Your task to perform on an android device: Do I have any events today? Image 0: 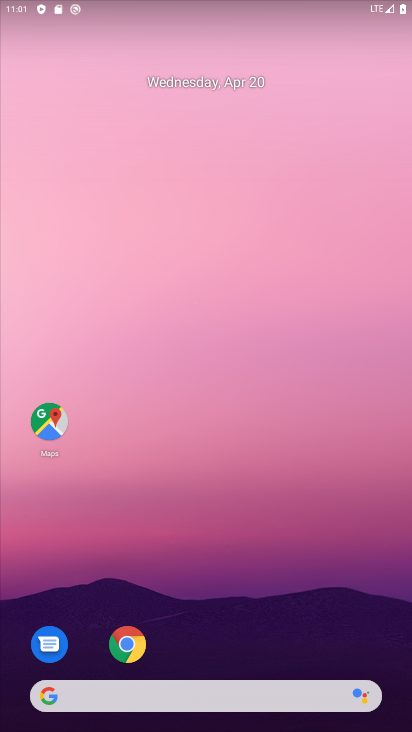
Step 0: drag from (143, 408) to (173, 3)
Your task to perform on an android device: Do I have any events today? Image 1: 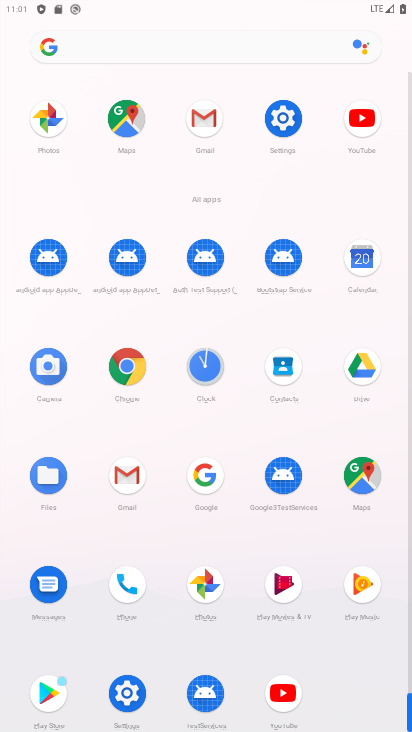
Step 1: click (369, 257)
Your task to perform on an android device: Do I have any events today? Image 2: 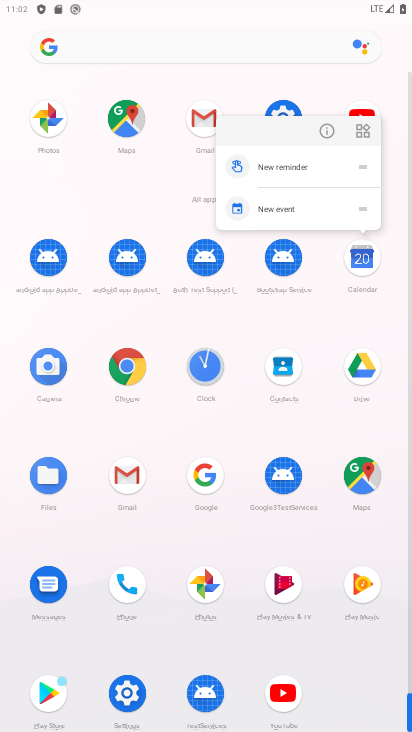
Step 2: click (365, 276)
Your task to perform on an android device: Do I have any events today? Image 3: 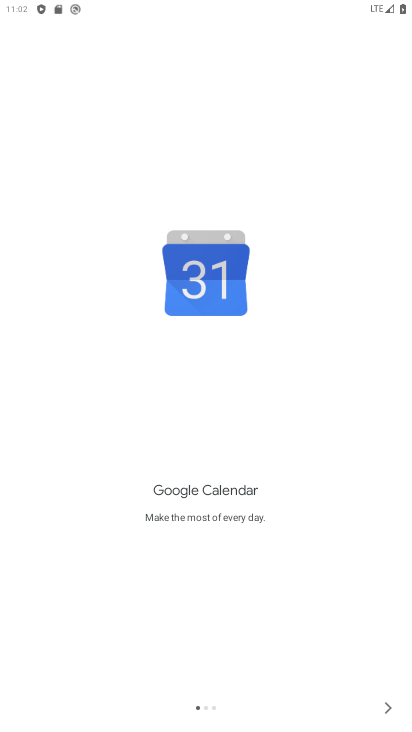
Step 3: click (383, 711)
Your task to perform on an android device: Do I have any events today? Image 4: 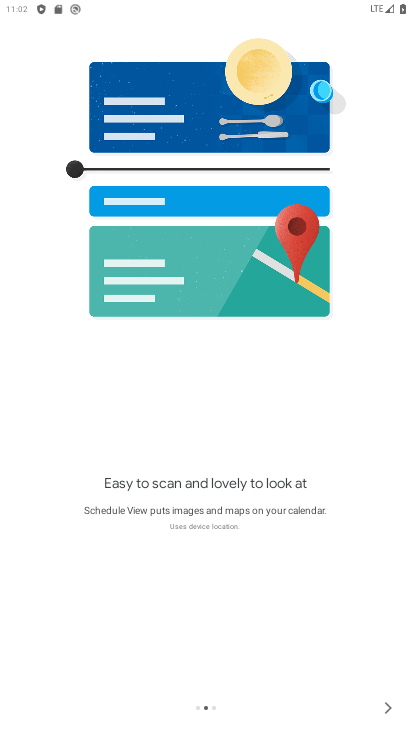
Step 4: click (383, 711)
Your task to perform on an android device: Do I have any events today? Image 5: 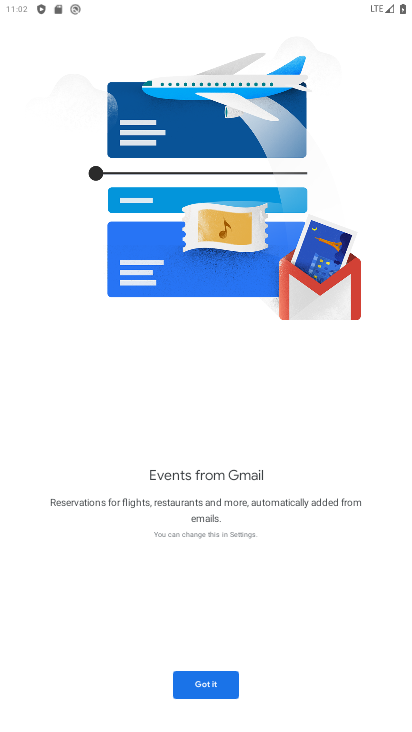
Step 5: click (200, 674)
Your task to perform on an android device: Do I have any events today? Image 6: 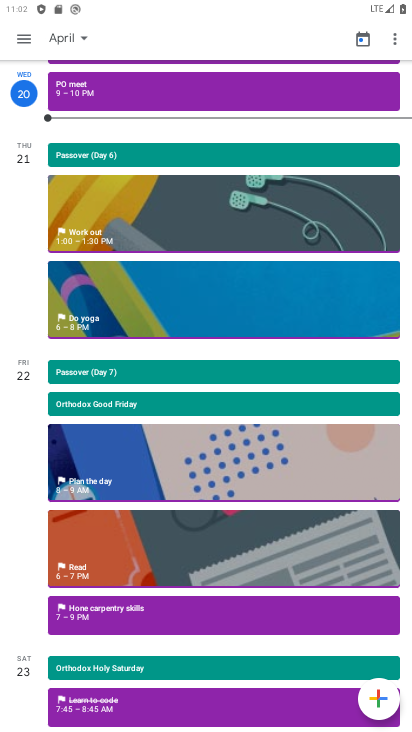
Step 6: click (25, 39)
Your task to perform on an android device: Do I have any events today? Image 7: 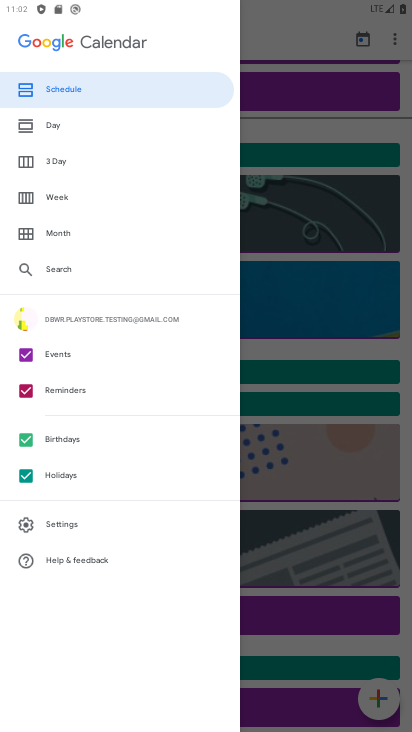
Step 7: click (76, 159)
Your task to perform on an android device: Do I have any events today? Image 8: 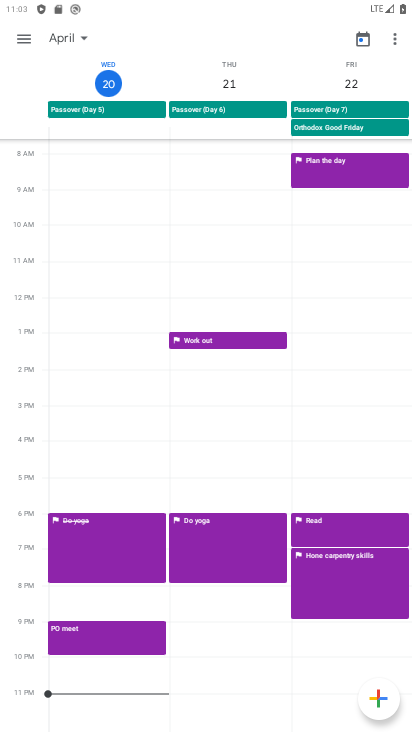
Step 8: click (24, 31)
Your task to perform on an android device: Do I have any events today? Image 9: 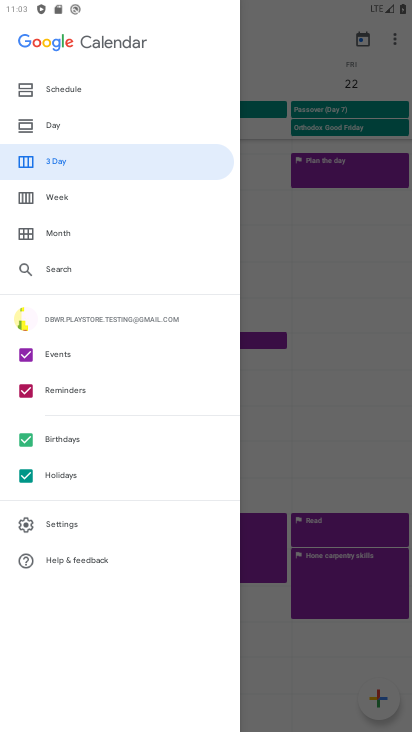
Step 9: click (56, 128)
Your task to perform on an android device: Do I have any events today? Image 10: 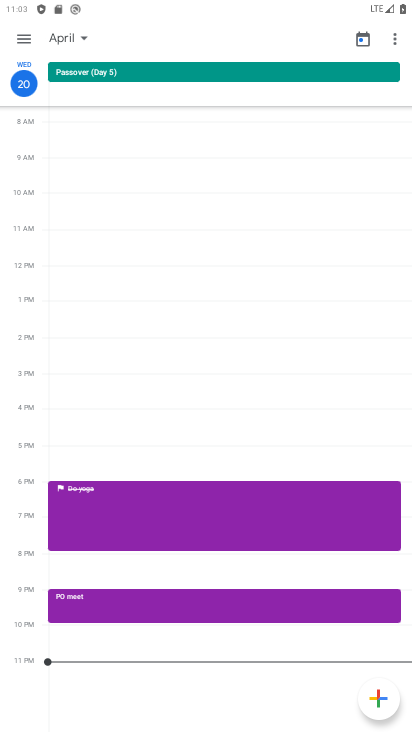
Step 10: task complete